Your task to perform on an android device: turn on the 24-hour format for clock Image 0: 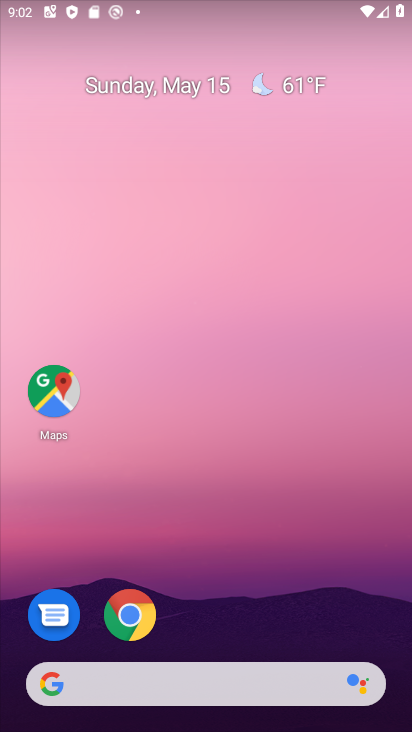
Step 0: drag from (239, 434) to (206, 6)
Your task to perform on an android device: turn on the 24-hour format for clock Image 1: 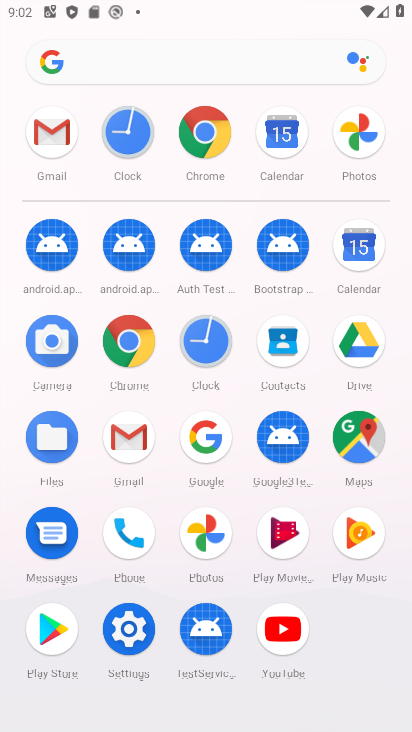
Step 1: drag from (17, 518) to (2, 251)
Your task to perform on an android device: turn on the 24-hour format for clock Image 2: 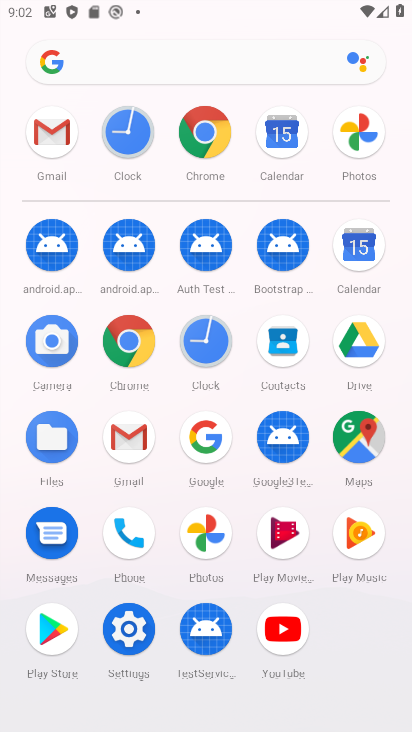
Step 2: click (204, 339)
Your task to perform on an android device: turn on the 24-hour format for clock Image 3: 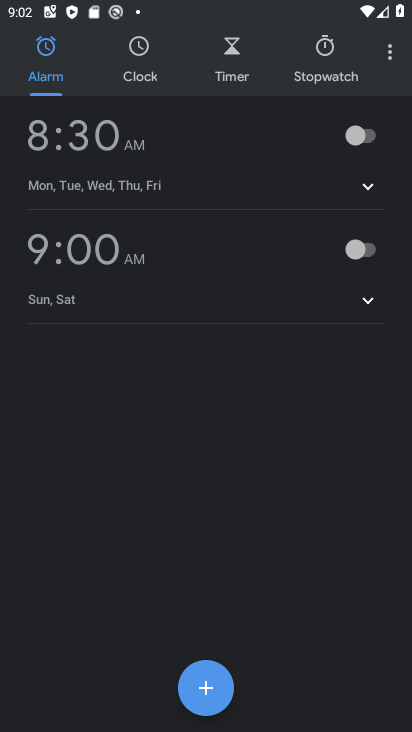
Step 3: drag from (388, 58) to (301, 103)
Your task to perform on an android device: turn on the 24-hour format for clock Image 4: 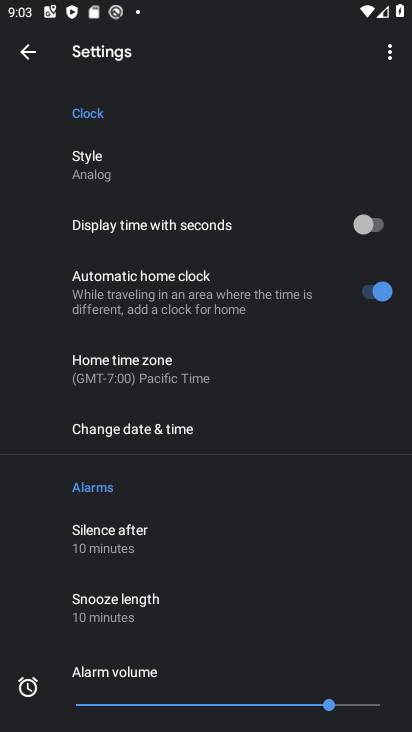
Step 4: click (169, 434)
Your task to perform on an android device: turn on the 24-hour format for clock Image 5: 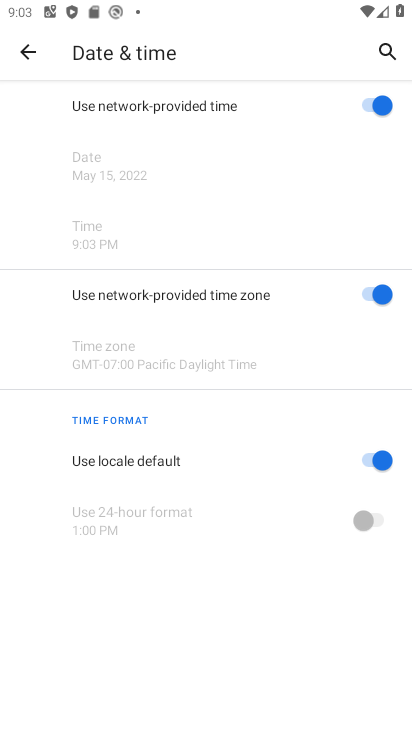
Step 5: click (360, 460)
Your task to perform on an android device: turn on the 24-hour format for clock Image 6: 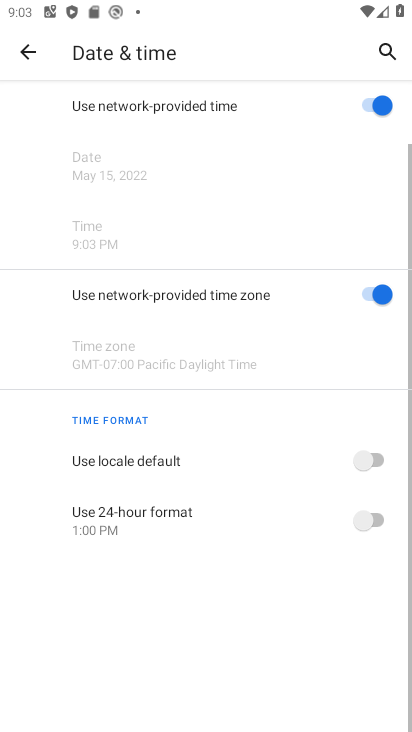
Step 6: click (374, 519)
Your task to perform on an android device: turn on the 24-hour format for clock Image 7: 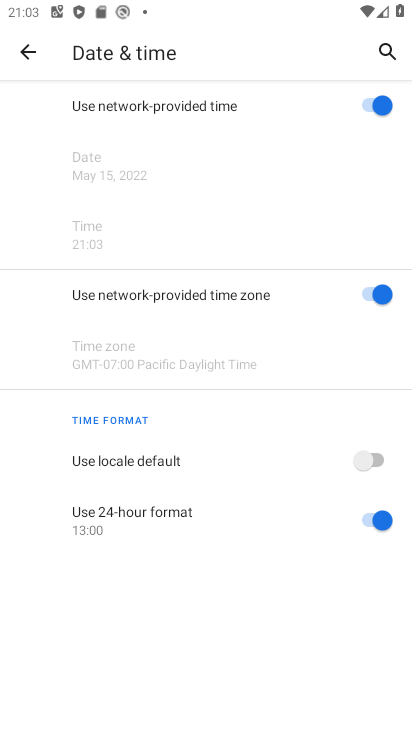
Step 7: task complete